Your task to perform on an android device: turn on javascript in the chrome app Image 0: 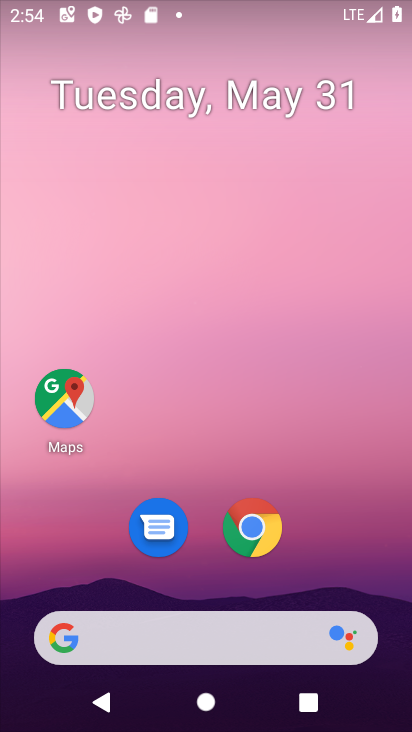
Step 0: drag from (332, 508) to (278, 0)
Your task to perform on an android device: turn on javascript in the chrome app Image 1: 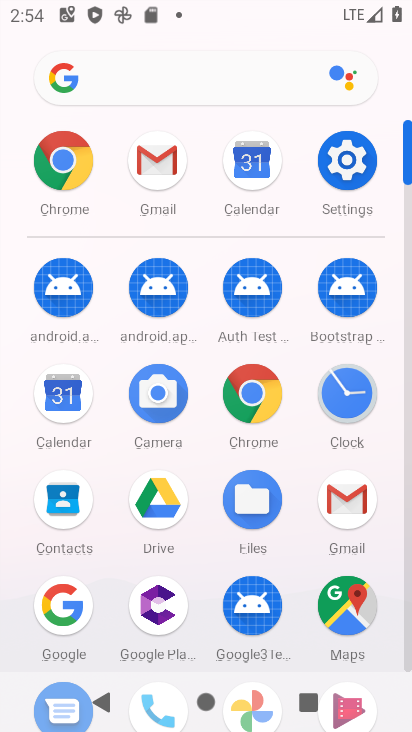
Step 1: click (72, 164)
Your task to perform on an android device: turn on javascript in the chrome app Image 2: 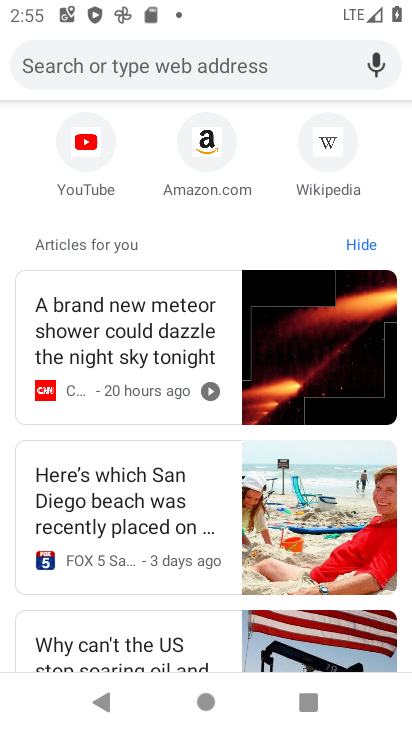
Step 2: drag from (239, 148) to (311, 558)
Your task to perform on an android device: turn on javascript in the chrome app Image 3: 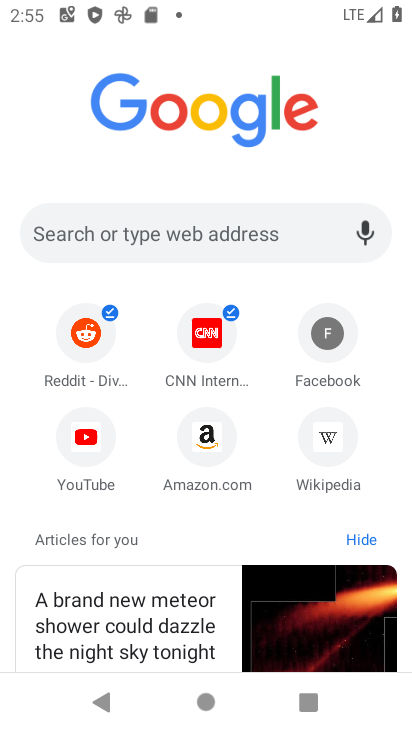
Step 3: drag from (227, 364) to (257, 591)
Your task to perform on an android device: turn on javascript in the chrome app Image 4: 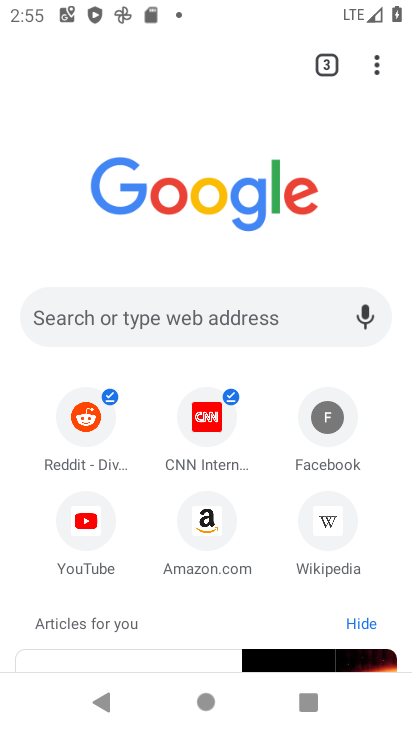
Step 4: drag from (379, 58) to (162, 541)
Your task to perform on an android device: turn on javascript in the chrome app Image 5: 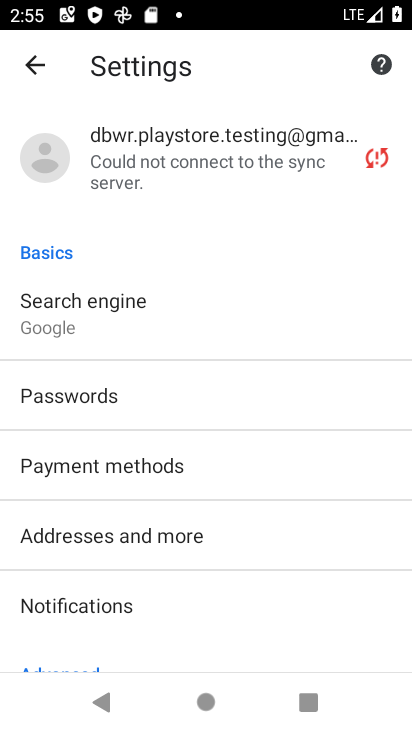
Step 5: drag from (170, 553) to (173, 134)
Your task to perform on an android device: turn on javascript in the chrome app Image 6: 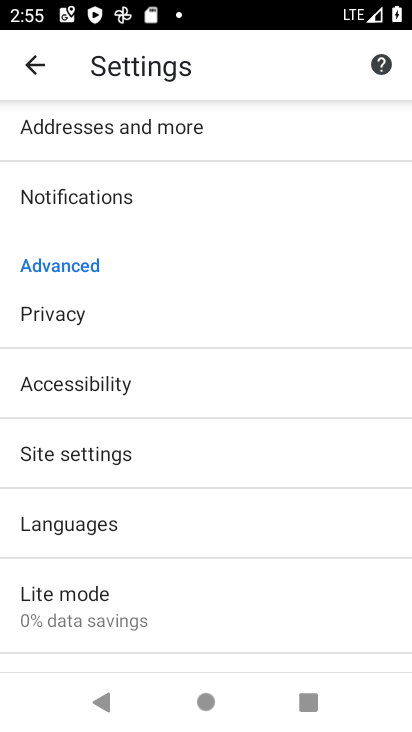
Step 6: drag from (143, 575) to (187, 146)
Your task to perform on an android device: turn on javascript in the chrome app Image 7: 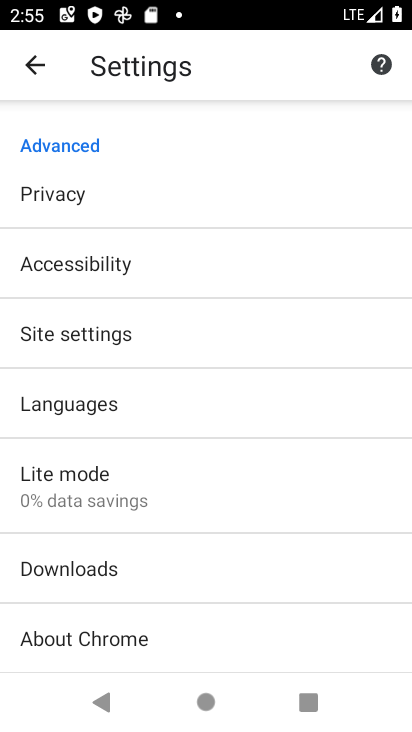
Step 7: click (91, 341)
Your task to perform on an android device: turn on javascript in the chrome app Image 8: 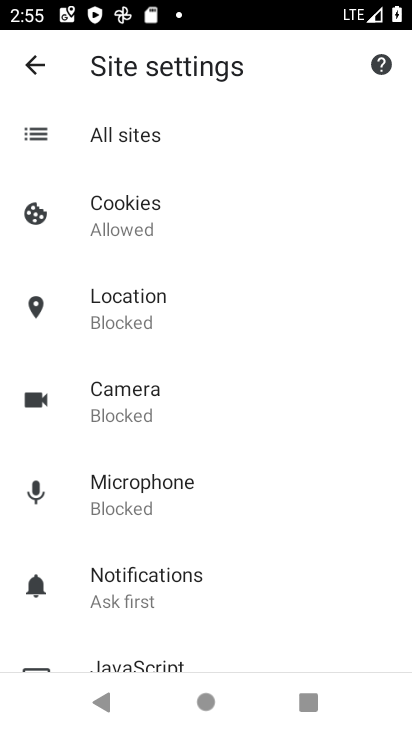
Step 8: drag from (155, 644) to (168, 245)
Your task to perform on an android device: turn on javascript in the chrome app Image 9: 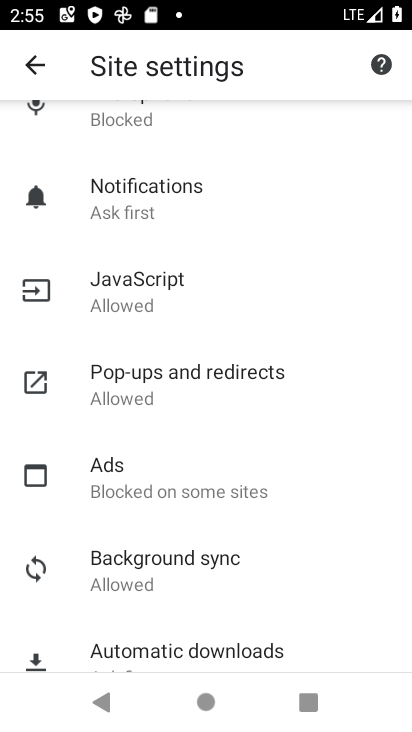
Step 9: click (109, 289)
Your task to perform on an android device: turn on javascript in the chrome app Image 10: 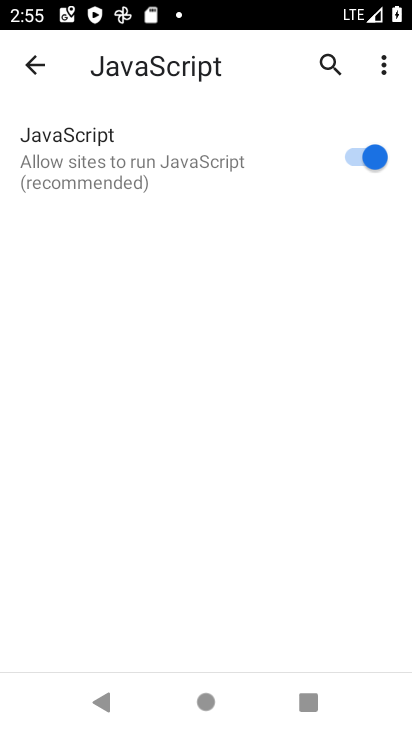
Step 10: task complete